Your task to perform on an android device: Go to Yahoo.com Image 0: 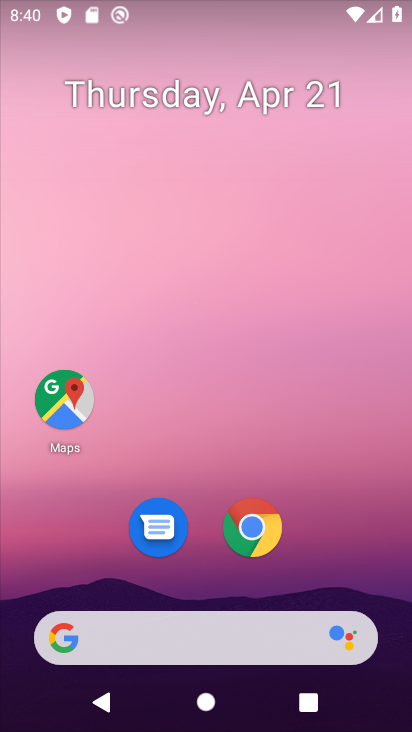
Step 0: drag from (293, 576) to (332, 255)
Your task to perform on an android device: Go to Yahoo.com Image 1: 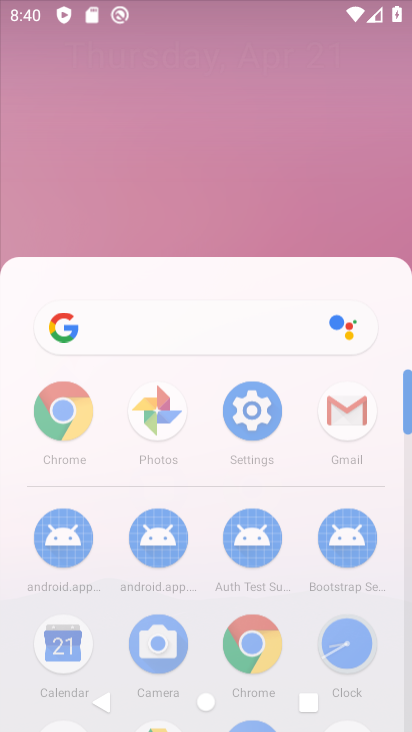
Step 1: click (342, 188)
Your task to perform on an android device: Go to Yahoo.com Image 2: 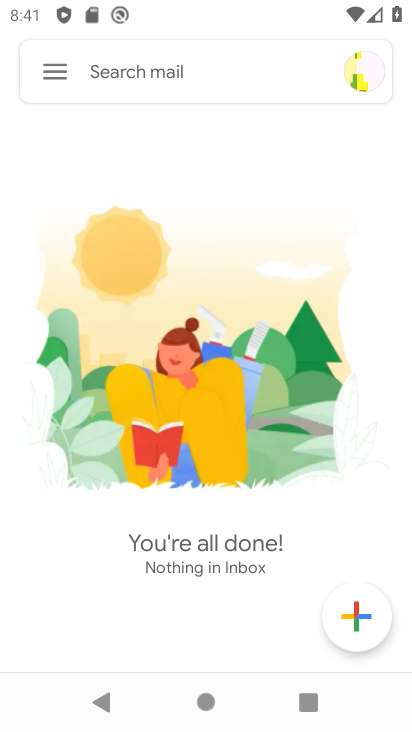
Step 2: click (236, 71)
Your task to perform on an android device: Go to Yahoo.com Image 3: 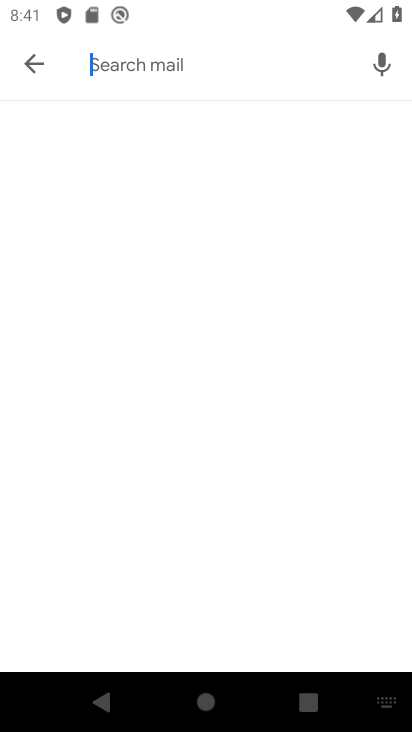
Step 3: type "yahoo.com"
Your task to perform on an android device: Go to Yahoo.com Image 4: 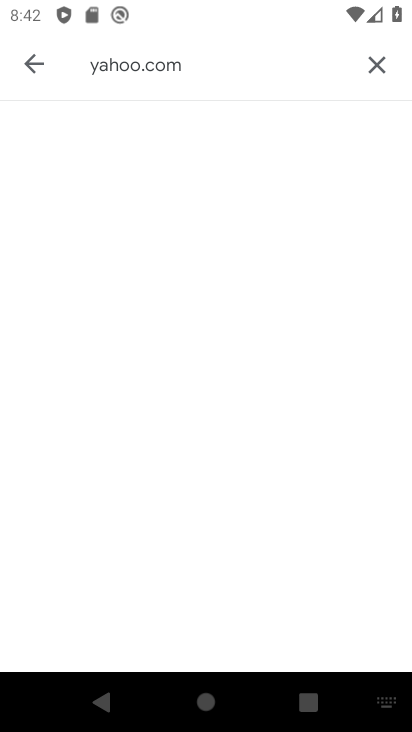
Step 4: task complete